Your task to perform on an android device: check battery use Image 0: 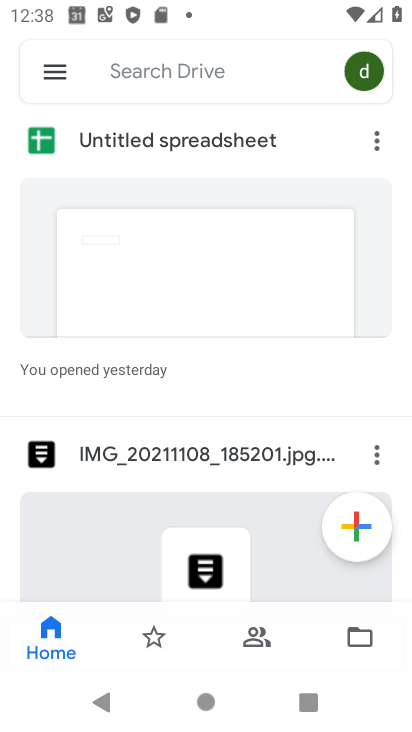
Step 0: press home button
Your task to perform on an android device: check battery use Image 1: 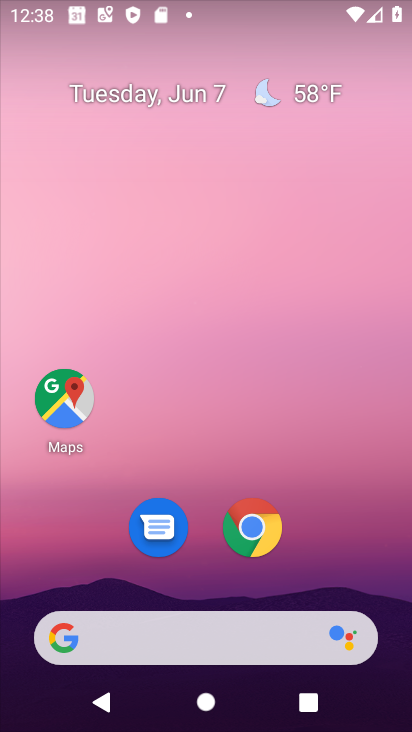
Step 1: drag from (387, 701) to (381, 251)
Your task to perform on an android device: check battery use Image 2: 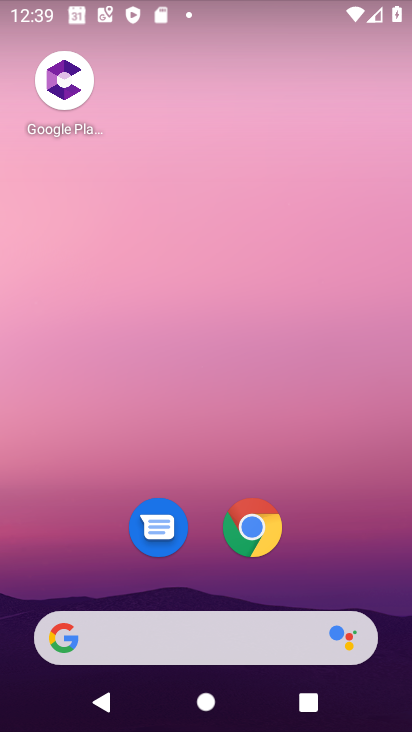
Step 2: drag from (394, 690) to (379, 123)
Your task to perform on an android device: check battery use Image 3: 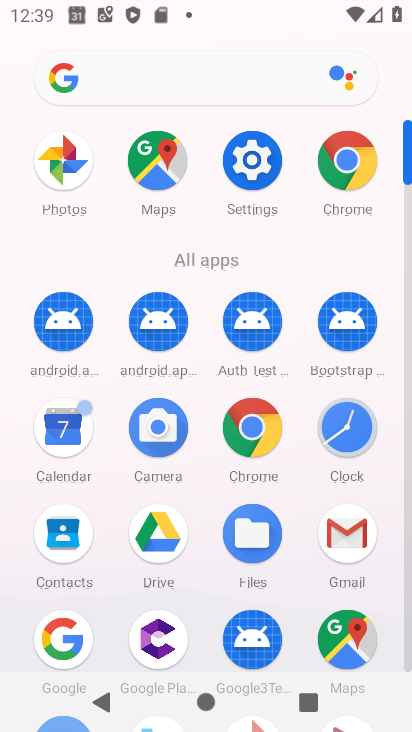
Step 3: click (272, 145)
Your task to perform on an android device: check battery use Image 4: 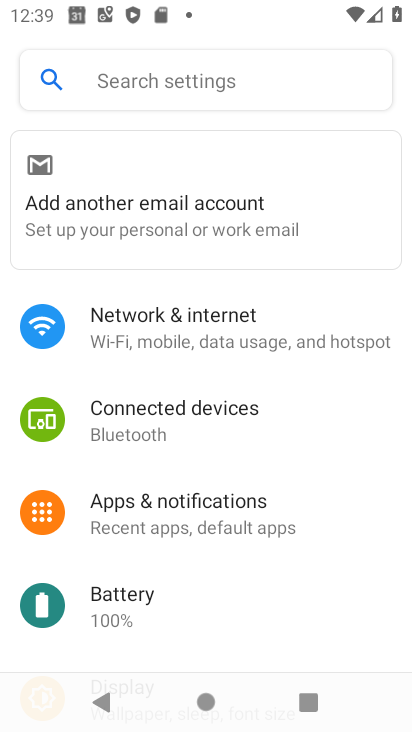
Step 4: click (136, 587)
Your task to perform on an android device: check battery use Image 5: 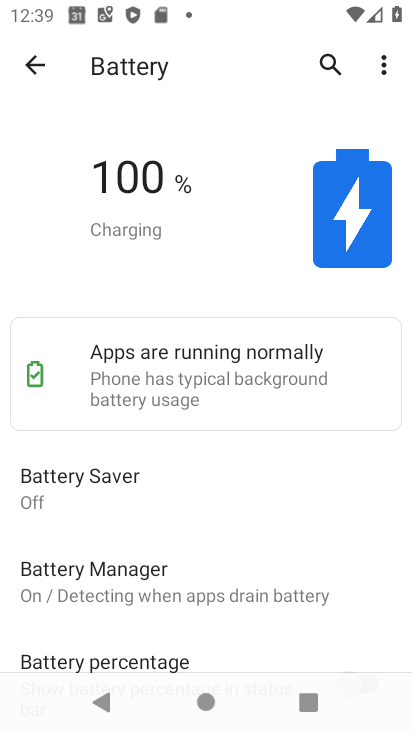
Step 5: drag from (237, 612) to (234, 254)
Your task to perform on an android device: check battery use Image 6: 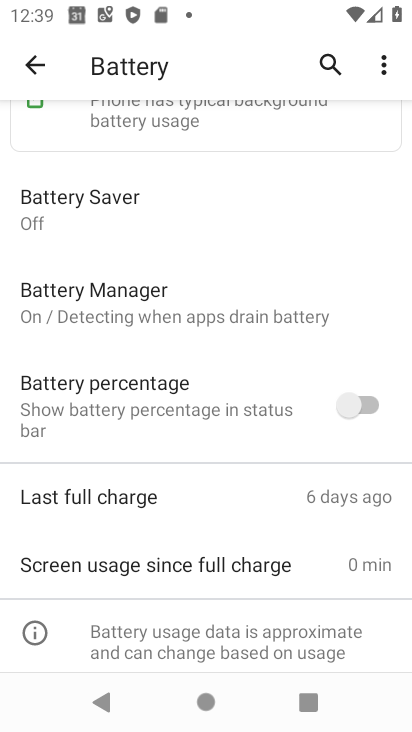
Step 6: click (379, 61)
Your task to perform on an android device: check battery use Image 7: 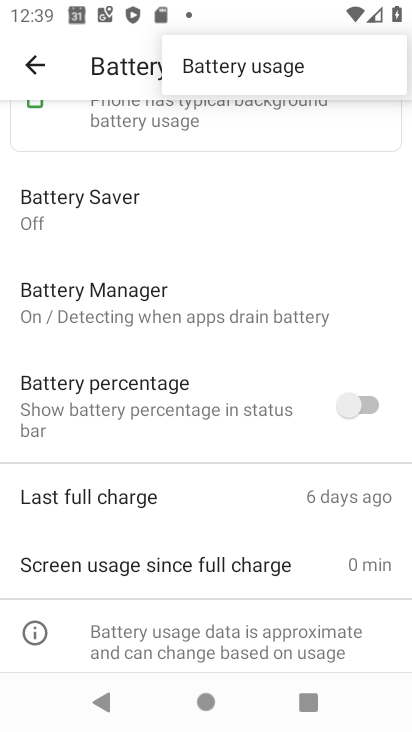
Step 7: click (267, 62)
Your task to perform on an android device: check battery use Image 8: 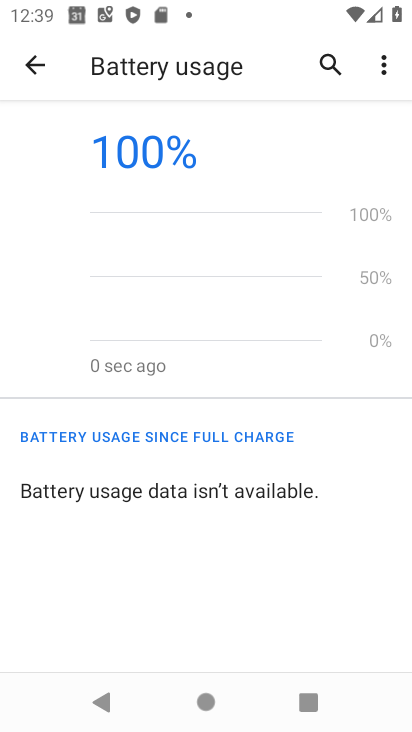
Step 8: task complete